Your task to perform on an android device: install app "YouTube Kids" Image 0: 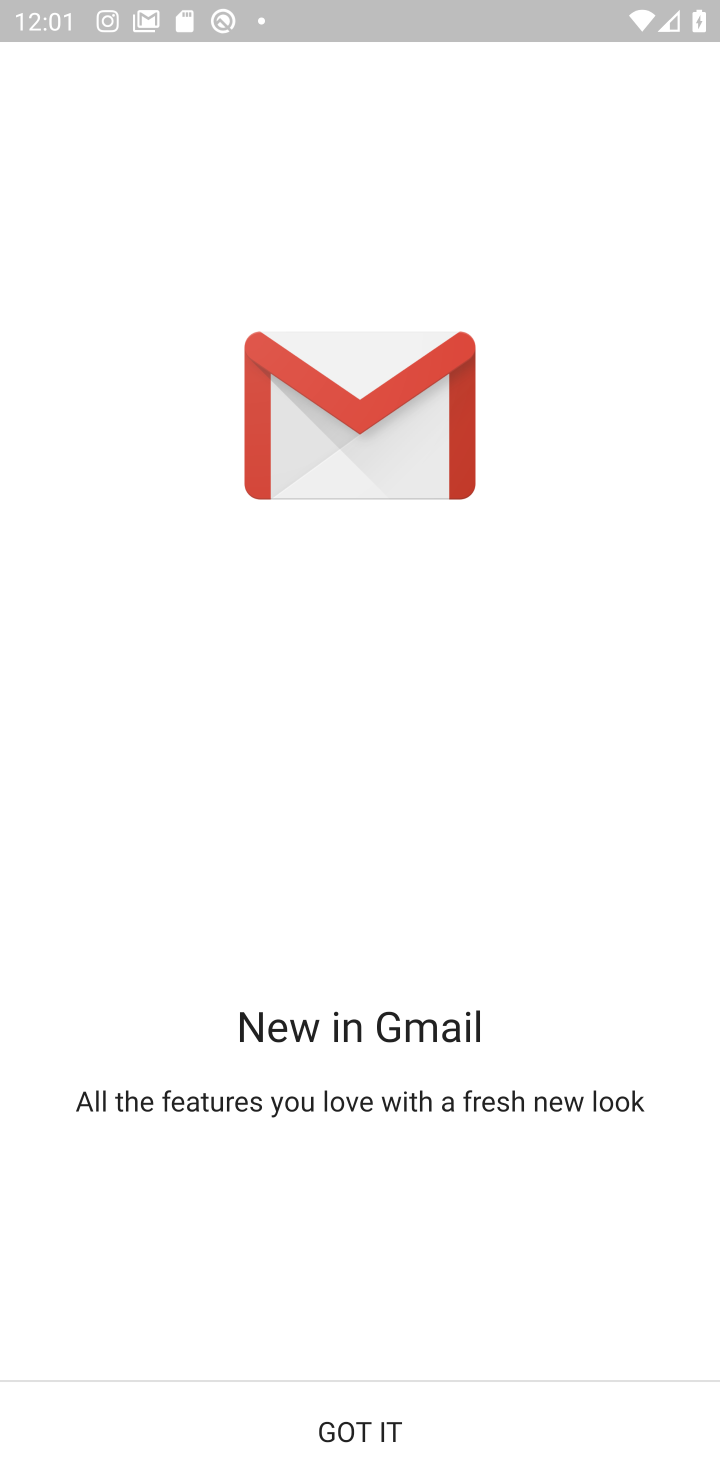
Step 0: press home button
Your task to perform on an android device: install app "YouTube Kids" Image 1: 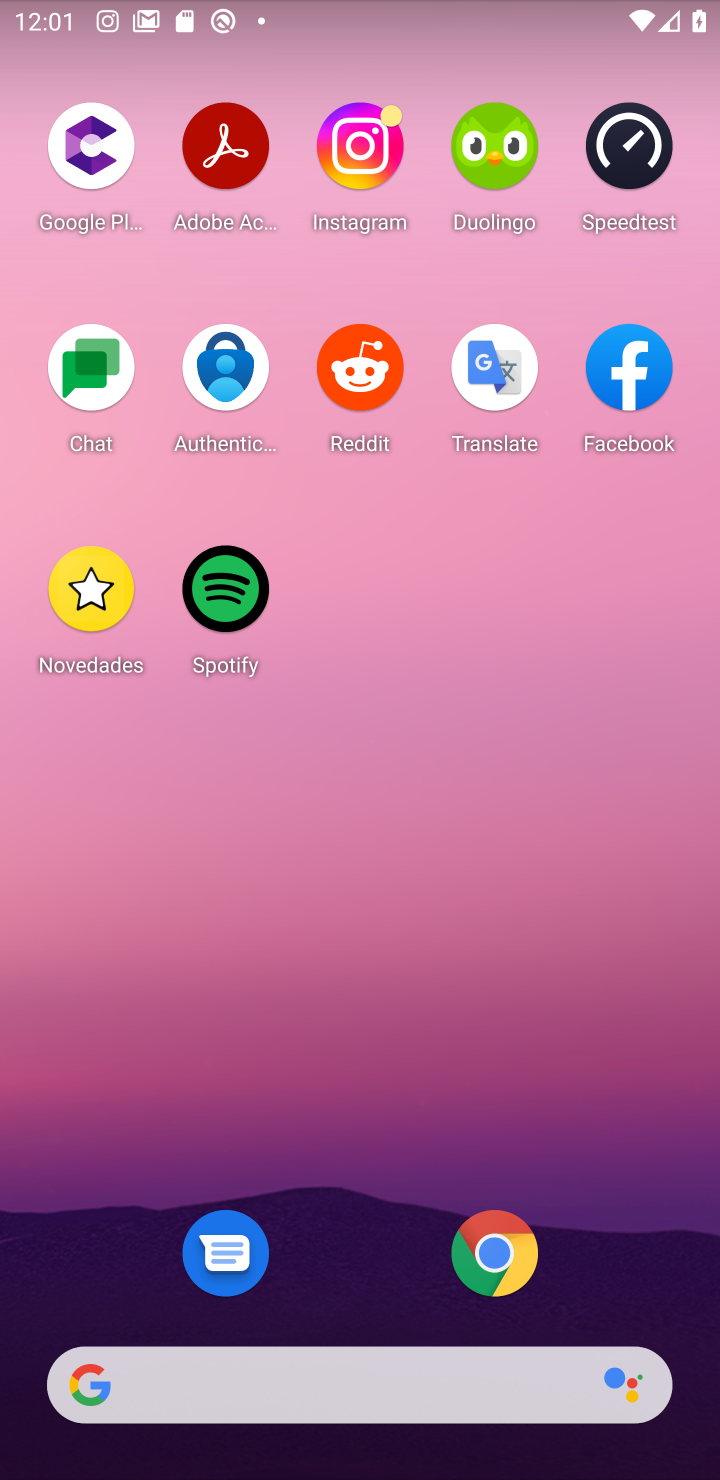
Step 1: drag from (316, 1145) to (371, 0)
Your task to perform on an android device: install app "YouTube Kids" Image 2: 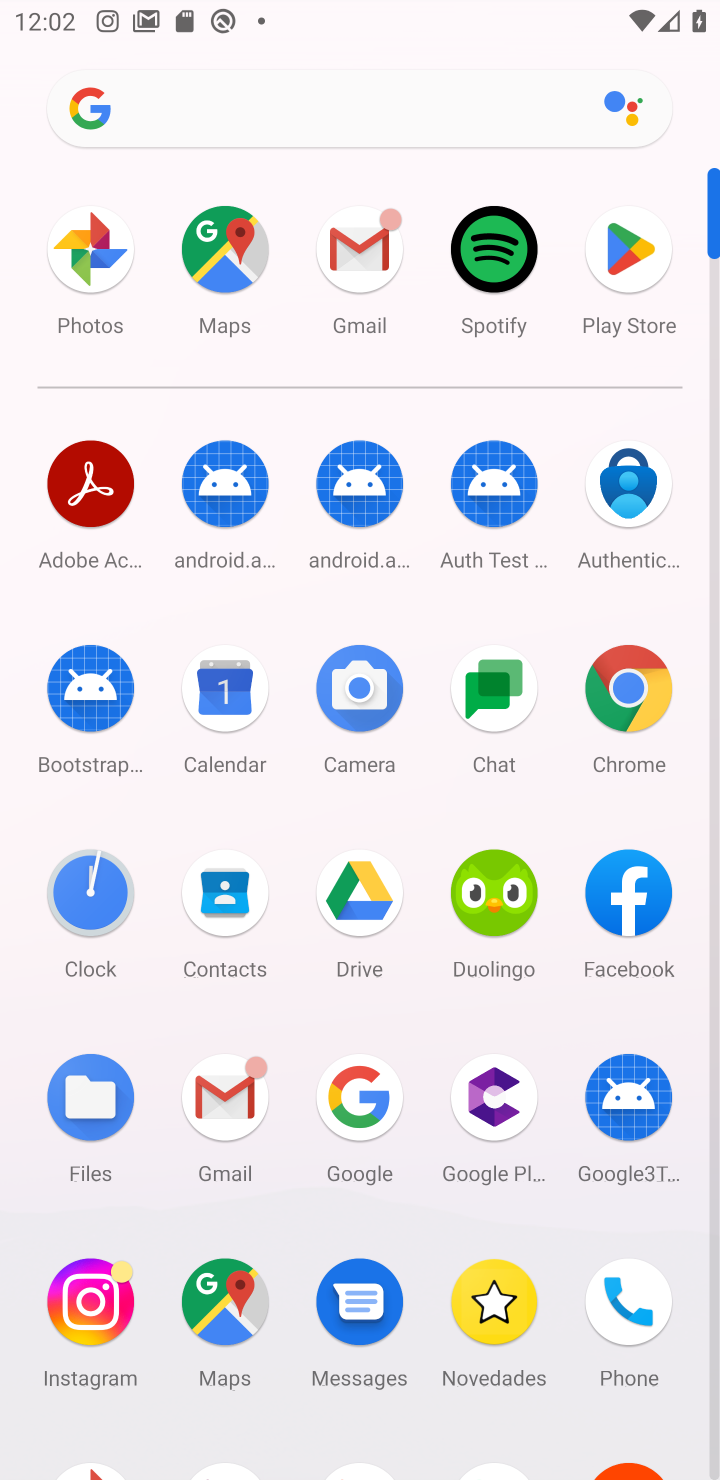
Step 2: click (625, 244)
Your task to perform on an android device: install app "YouTube Kids" Image 3: 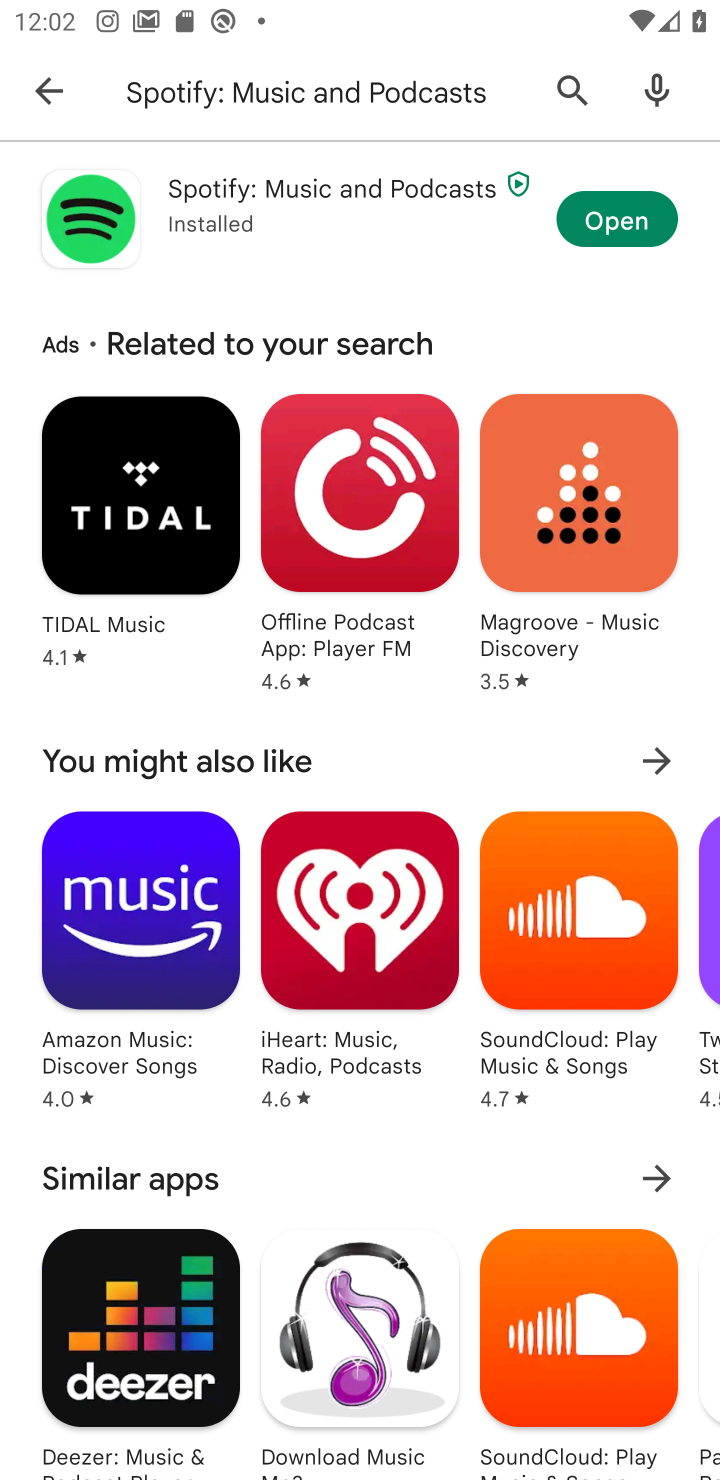
Step 3: click (316, 77)
Your task to perform on an android device: install app "YouTube Kids" Image 4: 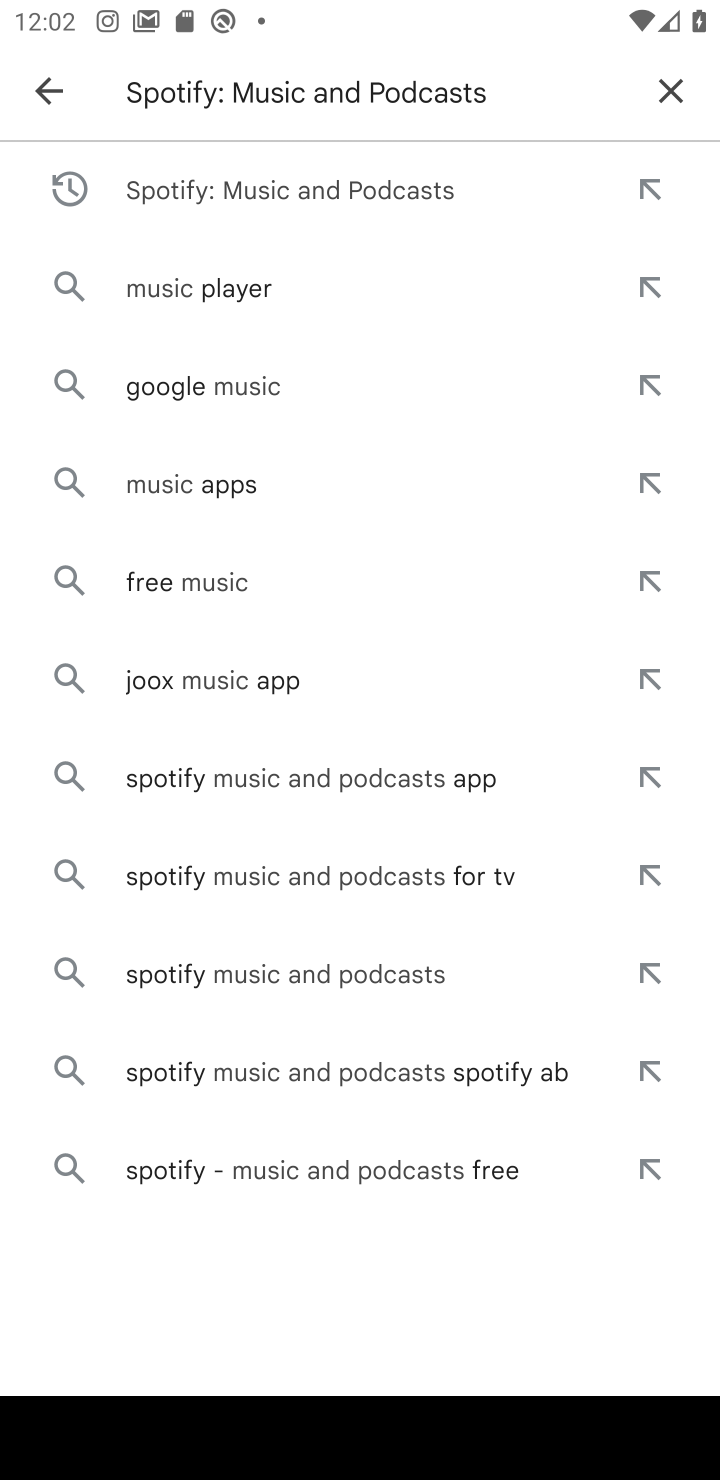
Step 4: click (669, 89)
Your task to perform on an android device: install app "YouTube Kids" Image 5: 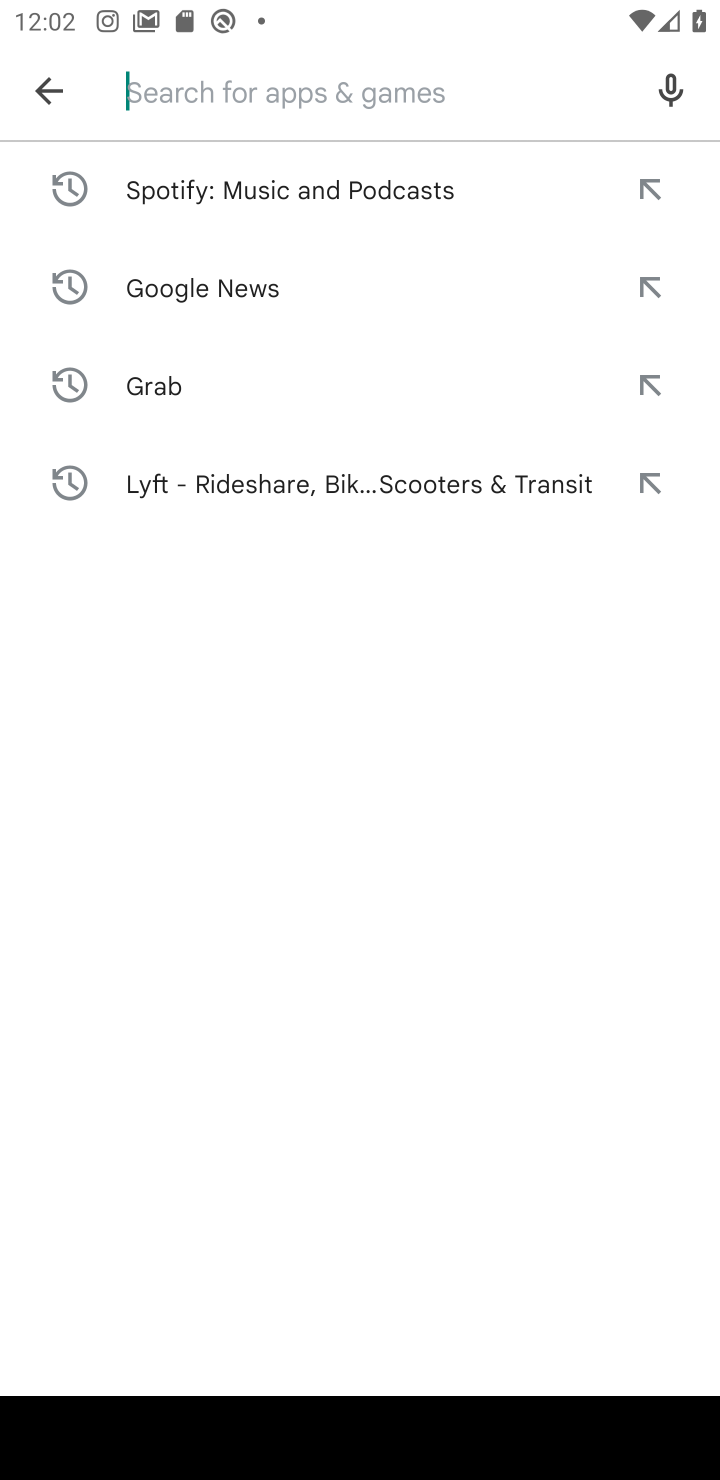
Step 5: type "YouTube Kids"
Your task to perform on an android device: install app "YouTube Kids" Image 6: 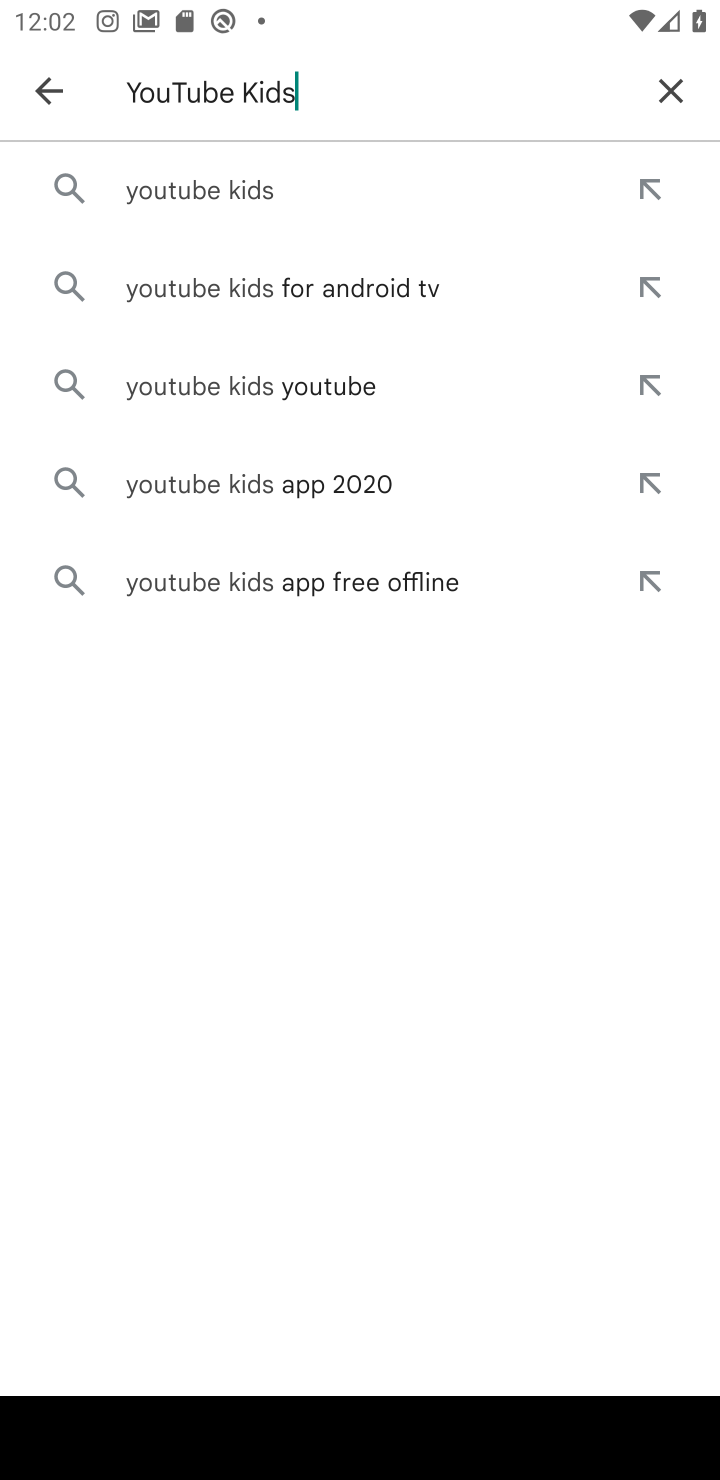
Step 6: press enter
Your task to perform on an android device: install app "YouTube Kids" Image 7: 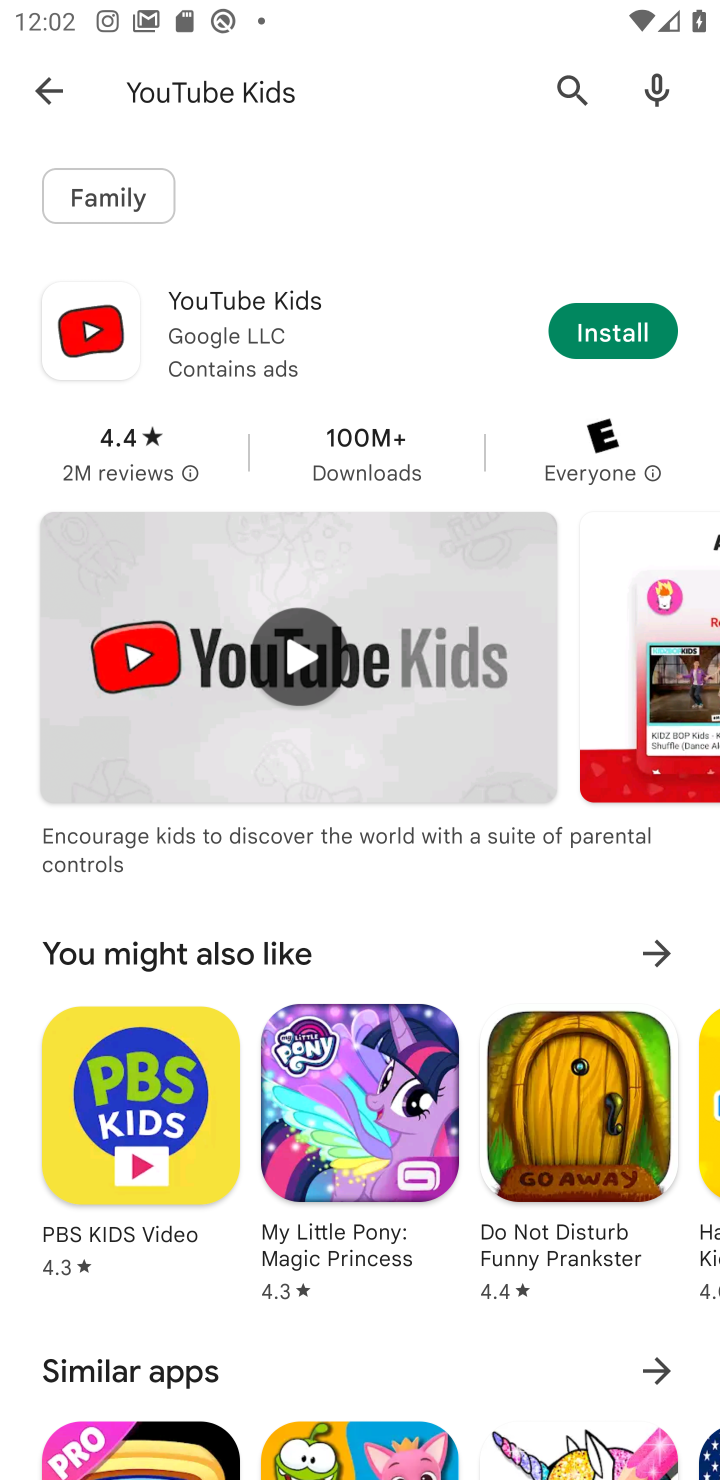
Step 7: click (641, 317)
Your task to perform on an android device: install app "YouTube Kids" Image 8: 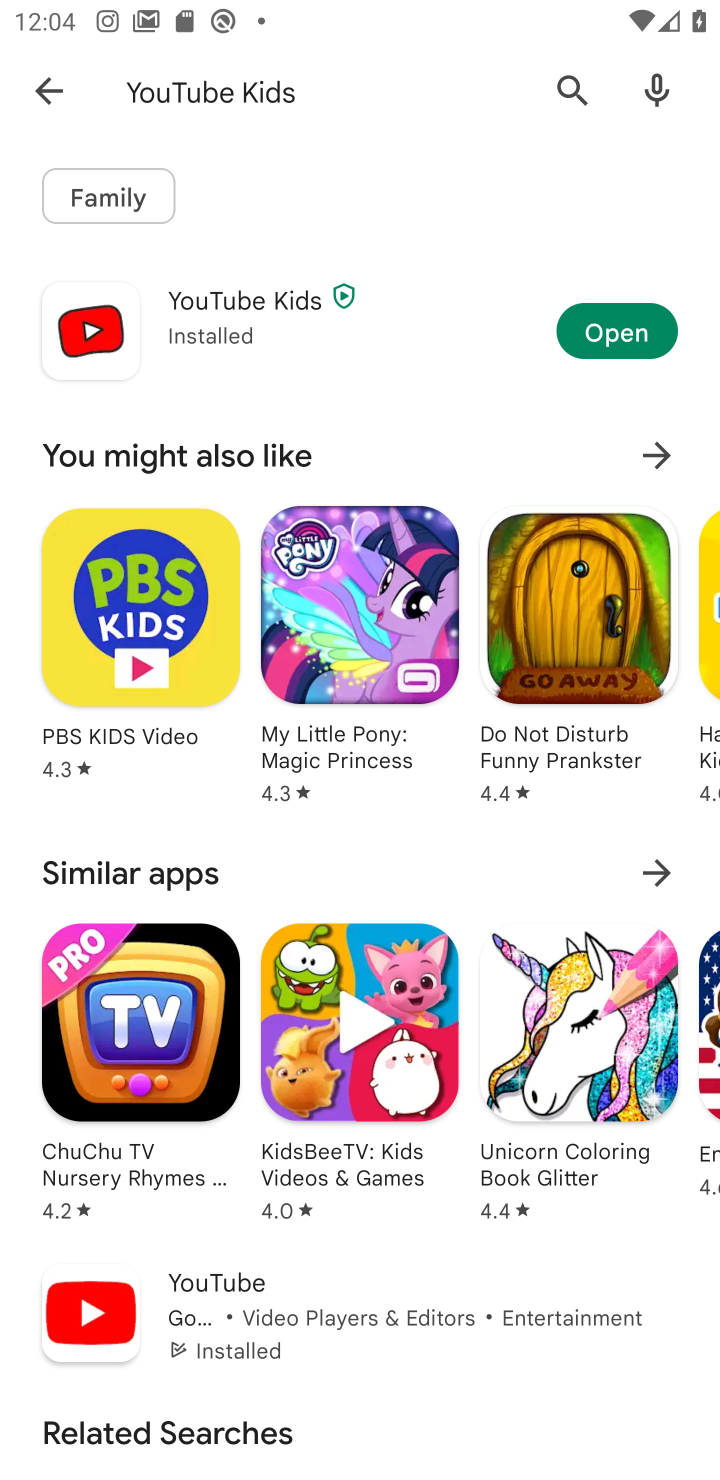
Step 8: task complete